Your task to perform on an android device: Go to ESPN.com Image 0: 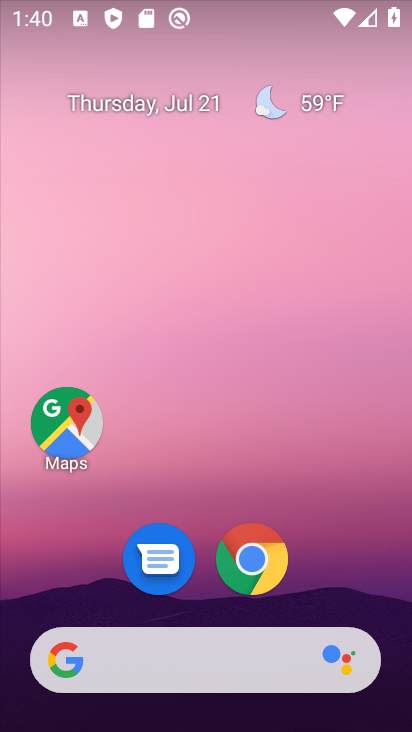
Step 0: drag from (133, 671) to (186, 132)
Your task to perform on an android device: Go to ESPN.com Image 1: 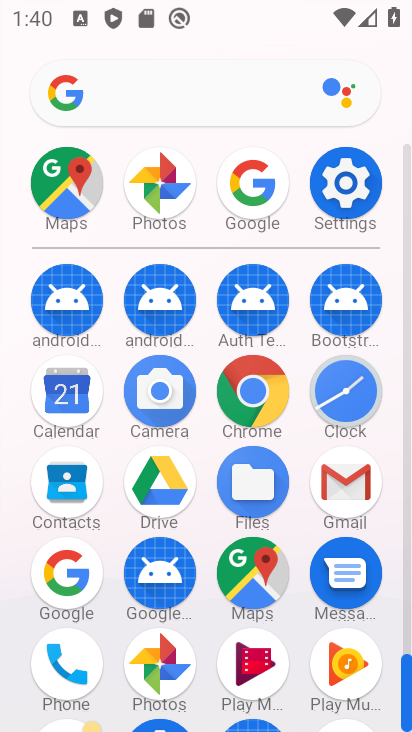
Step 1: click (258, 413)
Your task to perform on an android device: Go to ESPN.com Image 2: 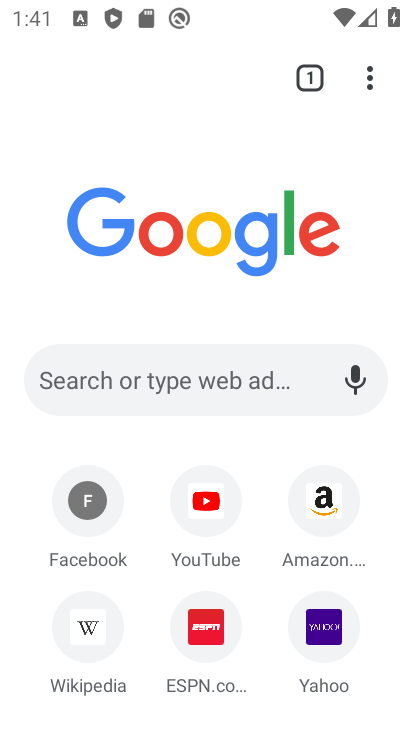
Step 2: click (203, 657)
Your task to perform on an android device: Go to ESPN.com Image 3: 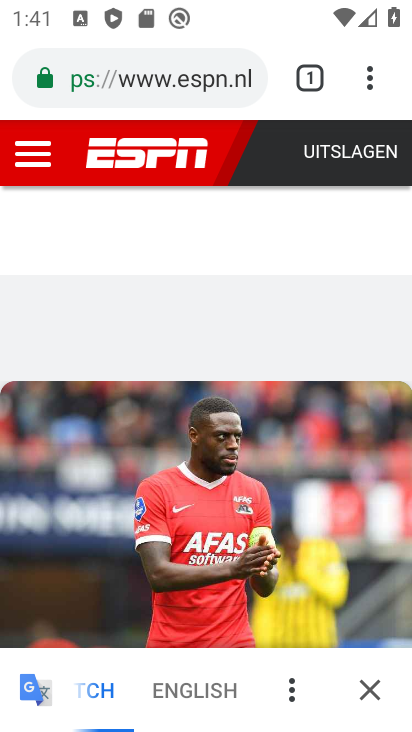
Step 3: task complete